Your task to perform on an android device: read, delete, or share a saved page in the chrome app Image 0: 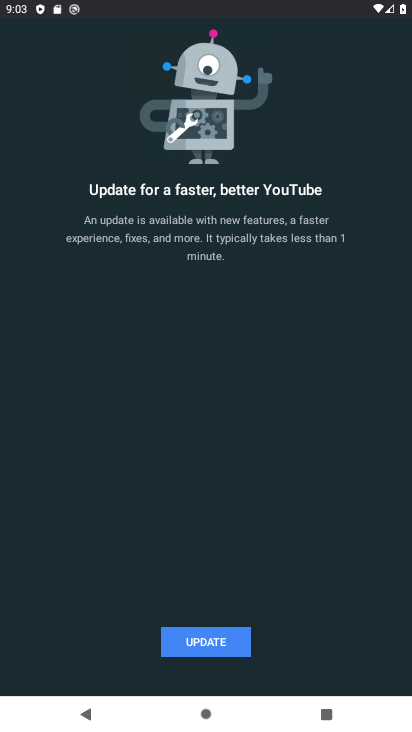
Step 0: click (313, 231)
Your task to perform on an android device: read, delete, or share a saved page in the chrome app Image 1: 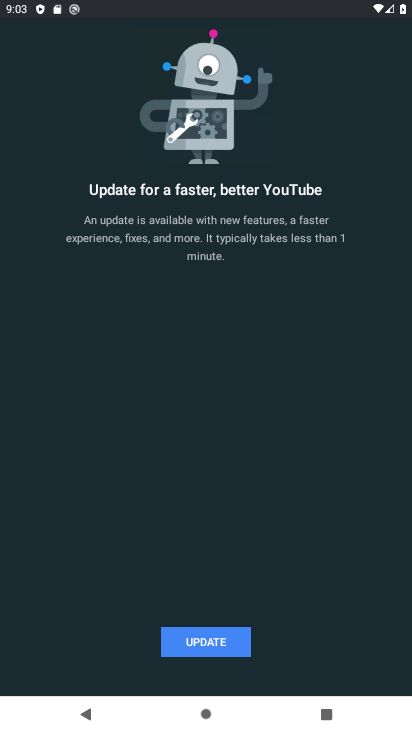
Step 1: press home button
Your task to perform on an android device: read, delete, or share a saved page in the chrome app Image 2: 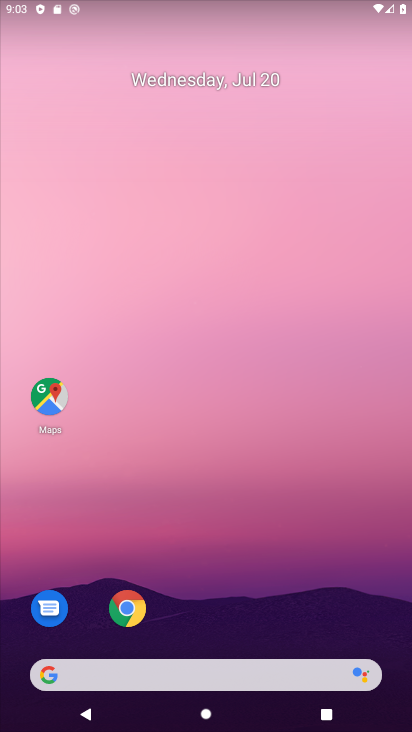
Step 2: click (151, 616)
Your task to perform on an android device: read, delete, or share a saved page in the chrome app Image 3: 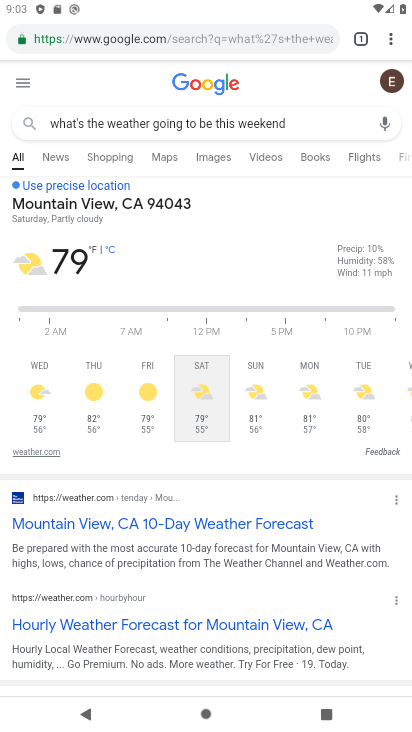
Step 3: click (389, 35)
Your task to perform on an android device: read, delete, or share a saved page in the chrome app Image 4: 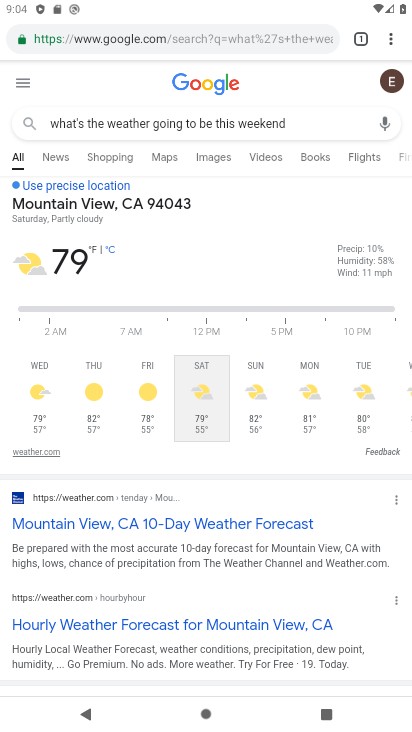
Step 4: click (394, 48)
Your task to perform on an android device: read, delete, or share a saved page in the chrome app Image 5: 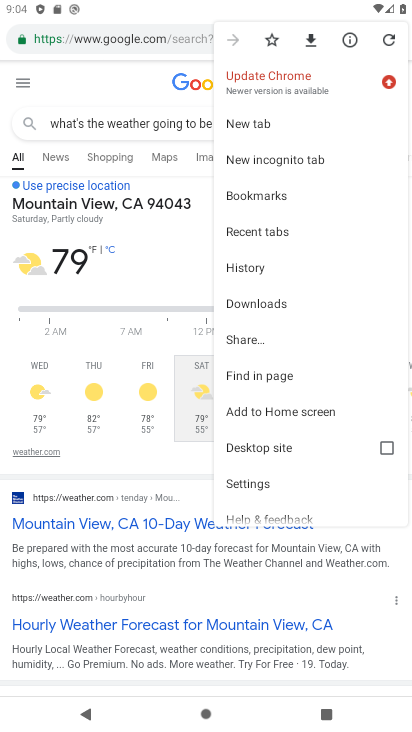
Step 5: click (272, 300)
Your task to perform on an android device: read, delete, or share a saved page in the chrome app Image 6: 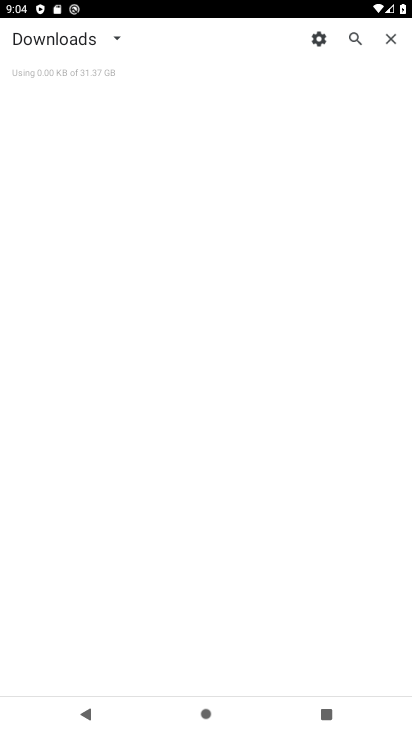
Step 6: click (109, 42)
Your task to perform on an android device: read, delete, or share a saved page in the chrome app Image 7: 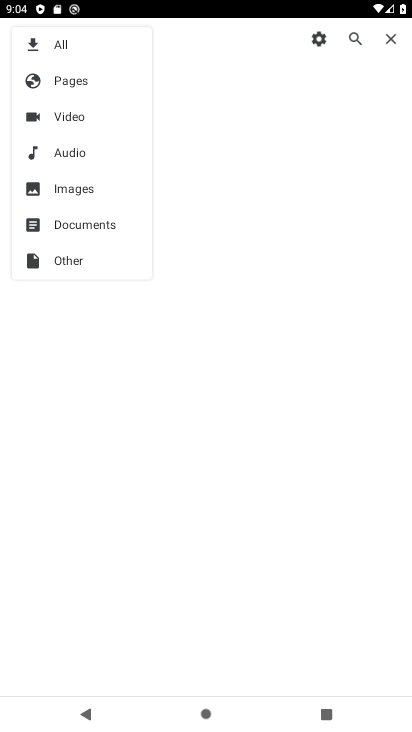
Step 7: click (92, 64)
Your task to perform on an android device: read, delete, or share a saved page in the chrome app Image 8: 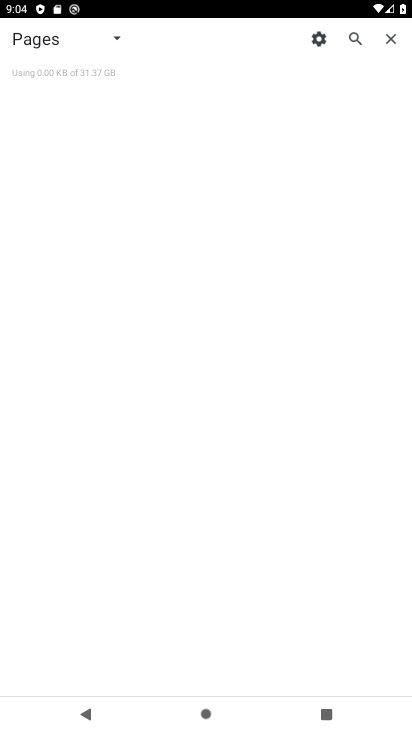
Step 8: task complete